Your task to perform on an android device: change timer sound Image 0: 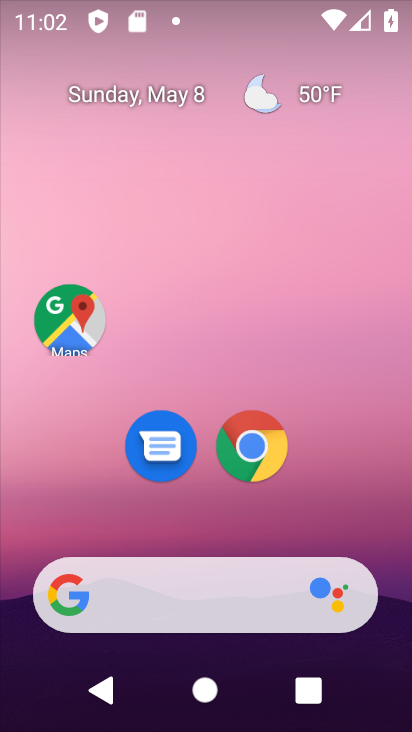
Step 0: drag from (314, 516) to (222, 10)
Your task to perform on an android device: change timer sound Image 1: 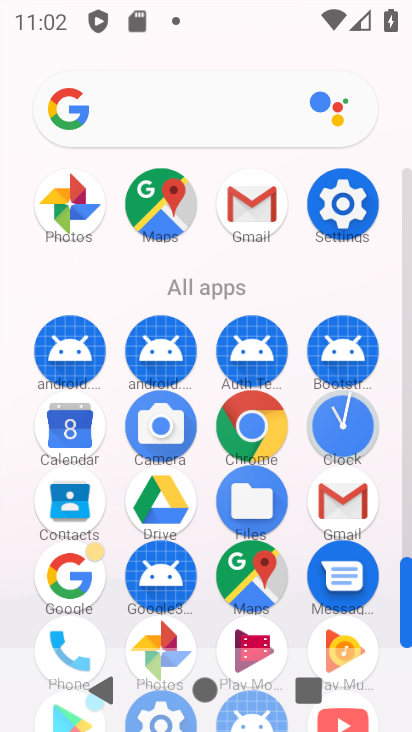
Step 1: click (346, 411)
Your task to perform on an android device: change timer sound Image 2: 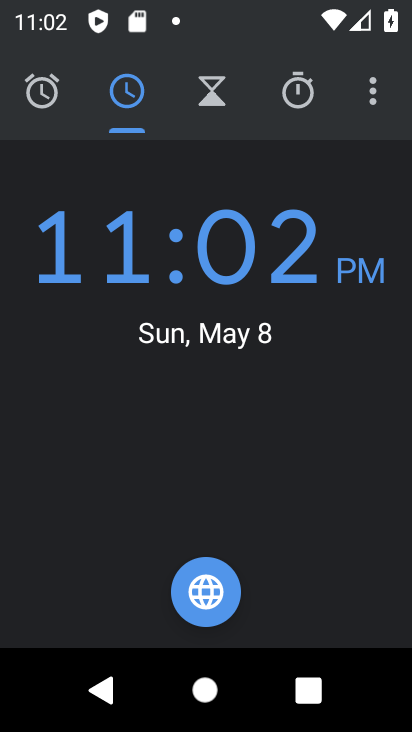
Step 2: click (375, 80)
Your task to perform on an android device: change timer sound Image 3: 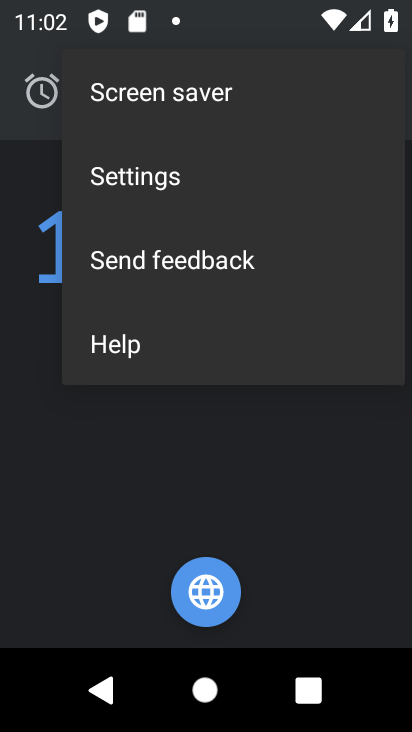
Step 3: click (193, 184)
Your task to perform on an android device: change timer sound Image 4: 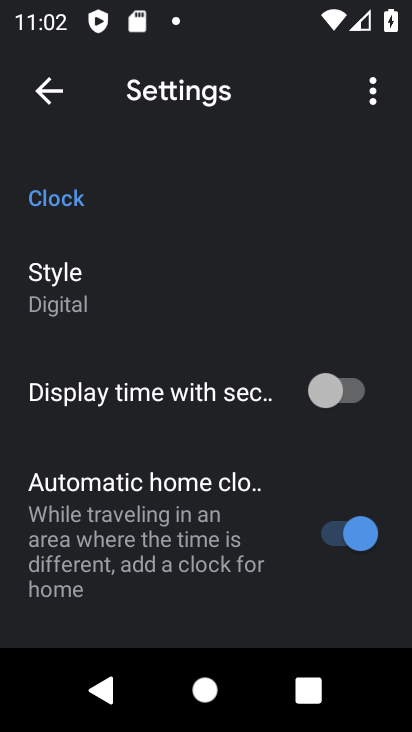
Step 4: drag from (121, 446) to (99, 292)
Your task to perform on an android device: change timer sound Image 5: 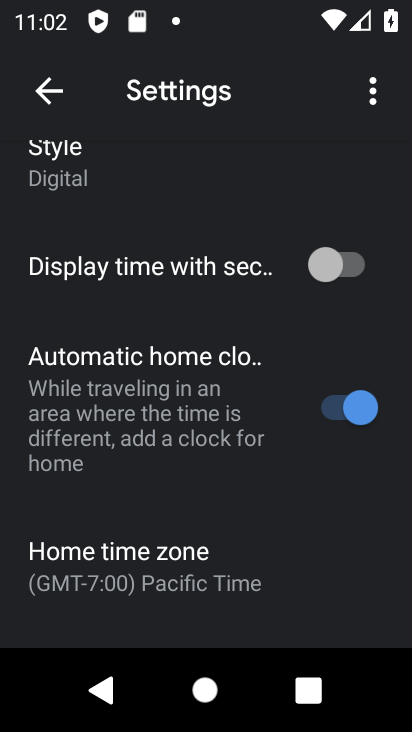
Step 5: drag from (91, 481) to (73, 346)
Your task to perform on an android device: change timer sound Image 6: 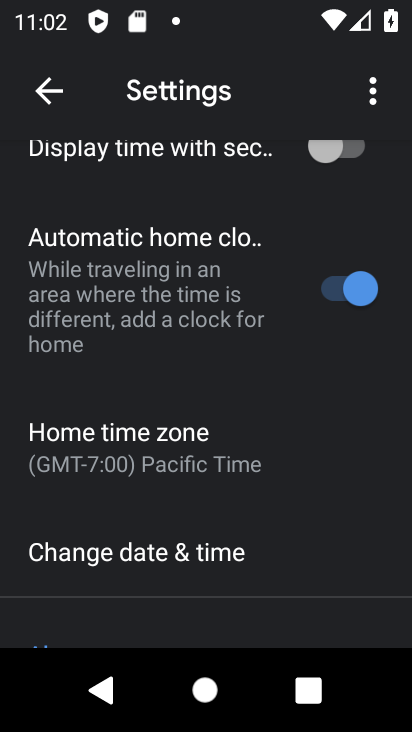
Step 6: drag from (133, 483) to (130, 346)
Your task to perform on an android device: change timer sound Image 7: 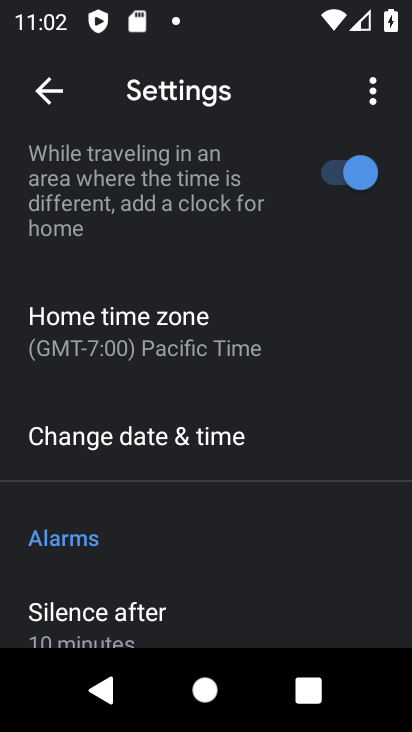
Step 7: click (137, 416)
Your task to perform on an android device: change timer sound Image 8: 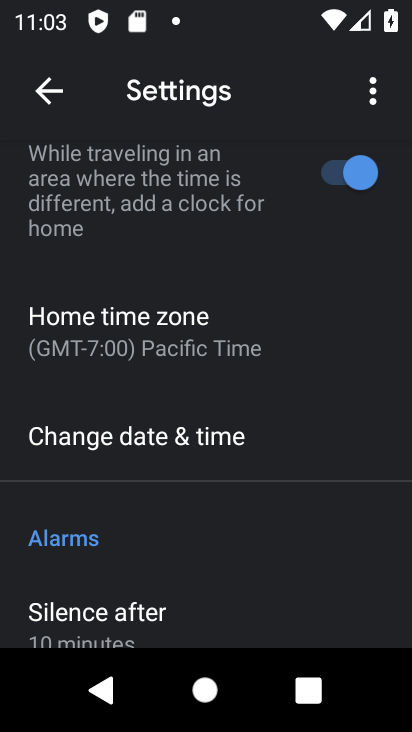
Step 8: drag from (165, 506) to (142, 378)
Your task to perform on an android device: change timer sound Image 9: 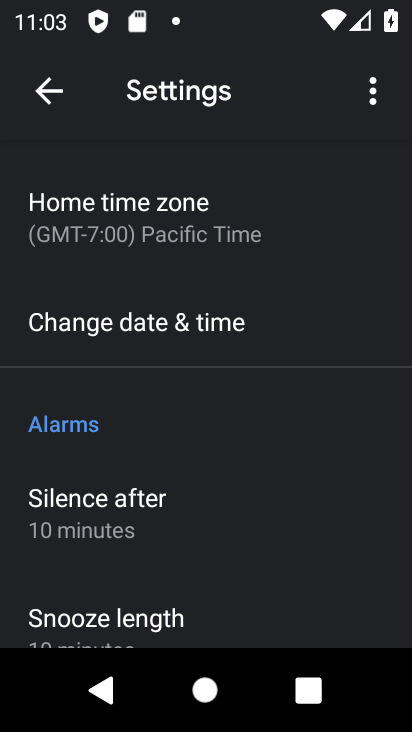
Step 9: drag from (184, 522) to (153, 409)
Your task to perform on an android device: change timer sound Image 10: 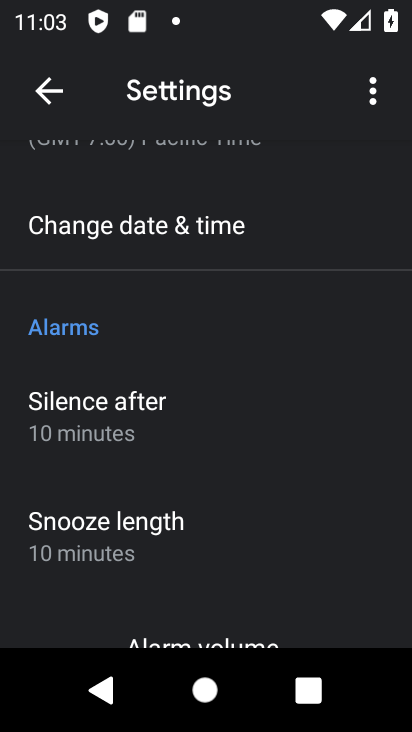
Step 10: drag from (162, 517) to (163, 362)
Your task to perform on an android device: change timer sound Image 11: 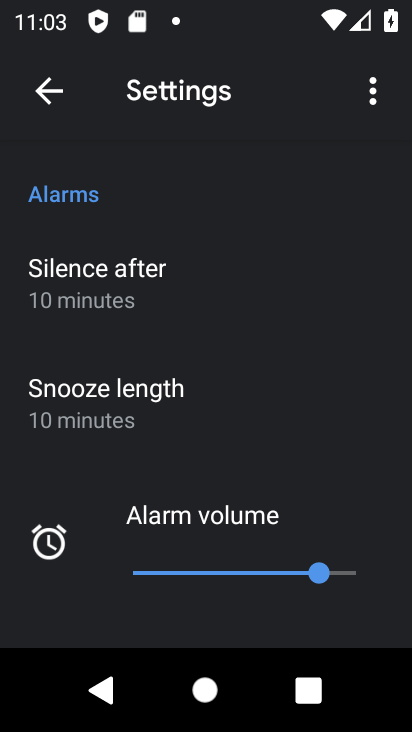
Step 11: drag from (178, 463) to (180, 316)
Your task to perform on an android device: change timer sound Image 12: 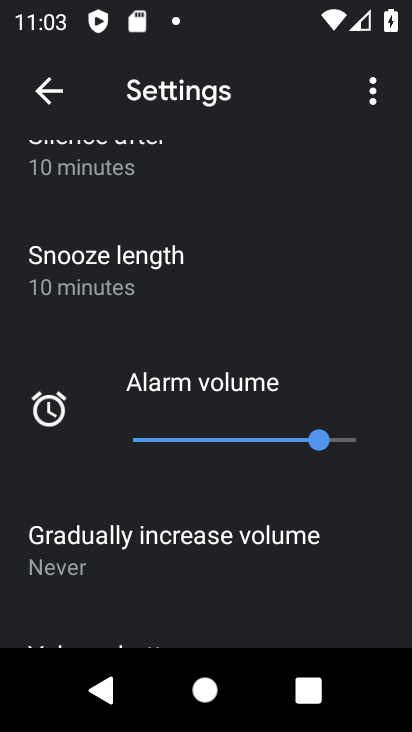
Step 12: drag from (177, 541) to (143, 399)
Your task to perform on an android device: change timer sound Image 13: 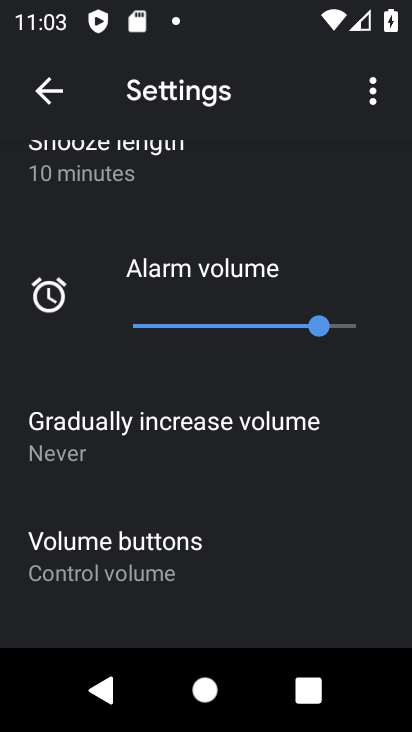
Step 13: drag from (148, 569) to (135, 422)
Your task to perform on an android device: change timer sound Image 14: 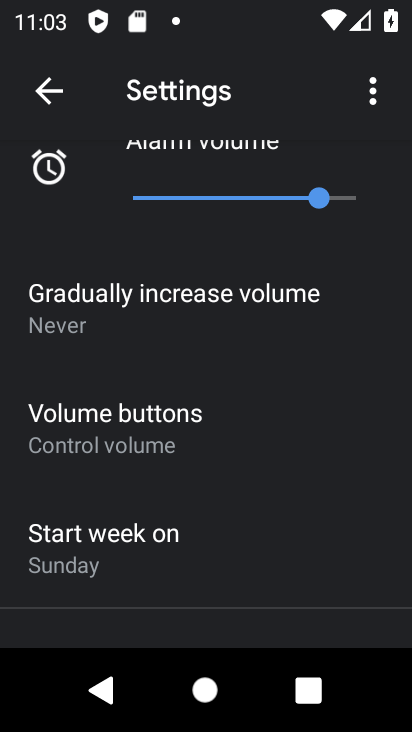
Step 14: drag from (152, 511) to (180, 333)
Your task to perform on an android device: change timer sound Image 15: 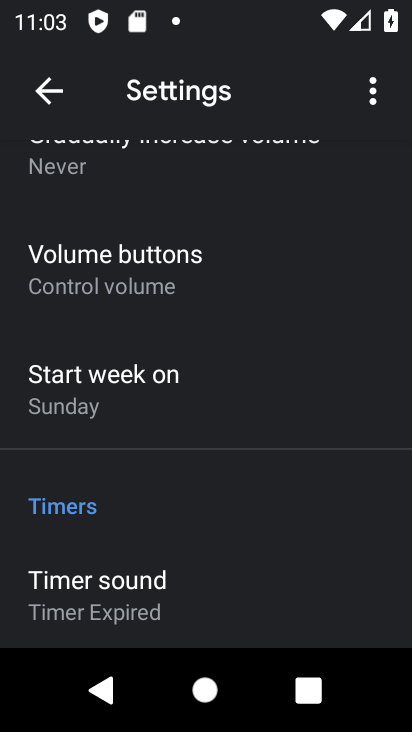
Step 15: click (201, 594)
Your task to perform on an android device: change timer sound Image 16: 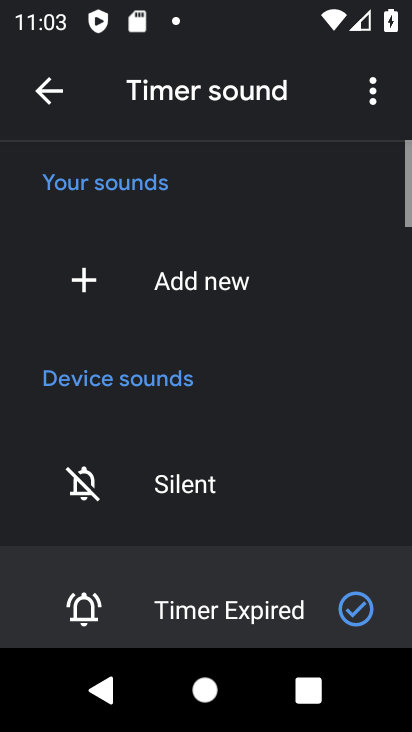
Step 16: click (224, 492)
Your task to perform on an android device: change timer sound Image 17: 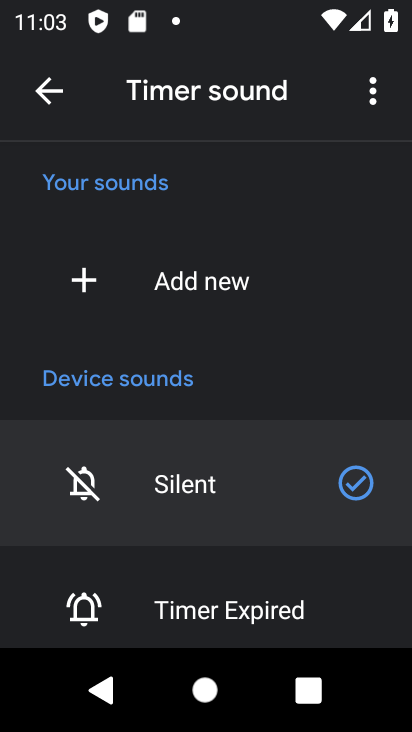
Step 17: task complete